Your task to perform on an android device: all mails in gmail Image 0: 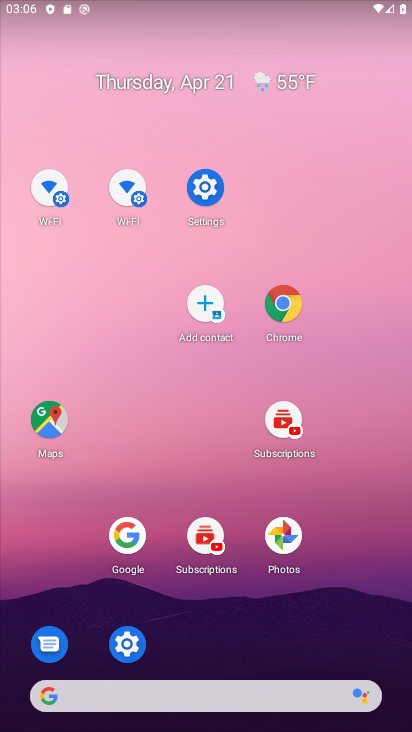
Step 0: drag from (279, 709) to (144, 356)
Your task to perform on an android device: all mails in gmail Image 1: 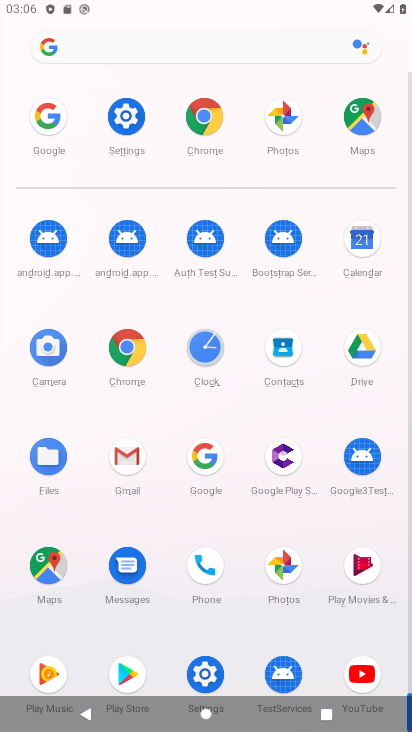
Step 1: drag from (247, 570) to (165, 155)
Your task to perform on an android device: all mails in gmail Image 2: 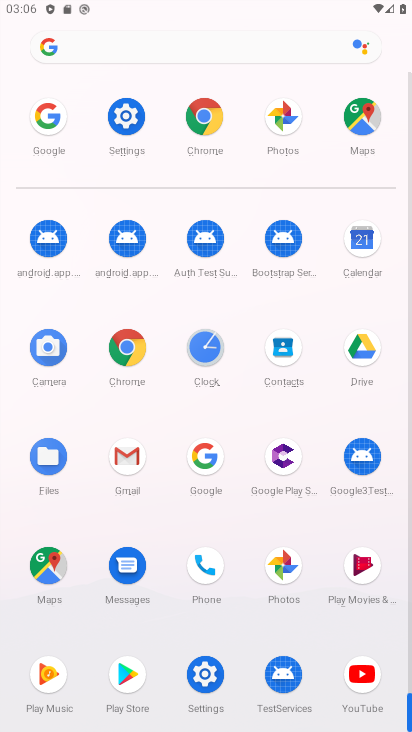
Step 2: click (127, 449)
Your task to perform on an android device: all mails in gmail Image 3: 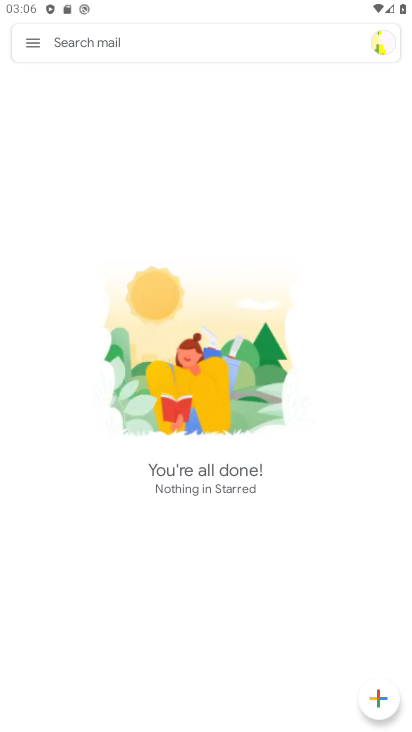
Step 3: click (30, 42)
Your task to perform on an android device: all mails in gmail Image 4: 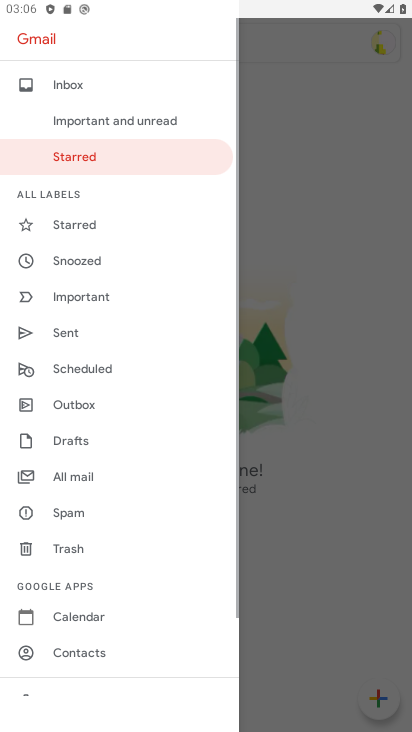
Step 4: click (33, 45)
Your task to perform on an android device: all mails in gmail Image 5: 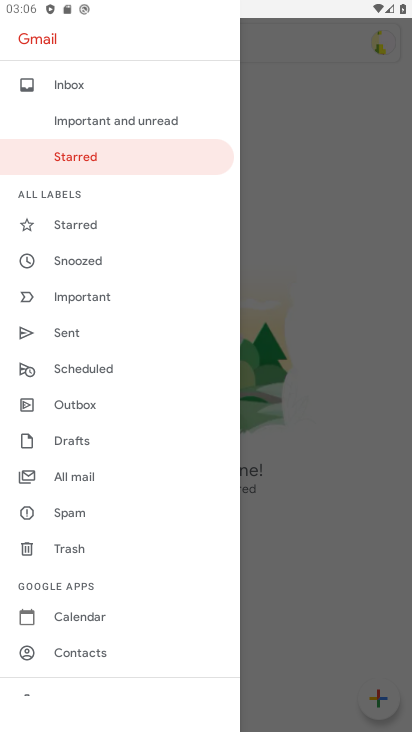
Step 5: click (77, 475)
Your task to perform on an android device: all mails in gmail Image 6: 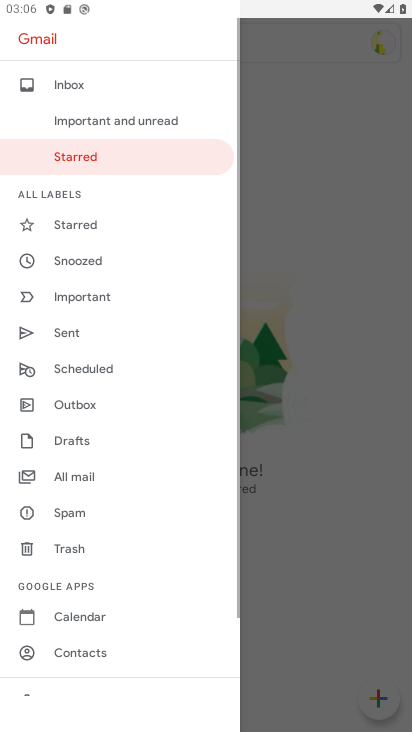
Step 6: click (77, 475)
Your task to perform on an android device: all mails in gmail Image 7: 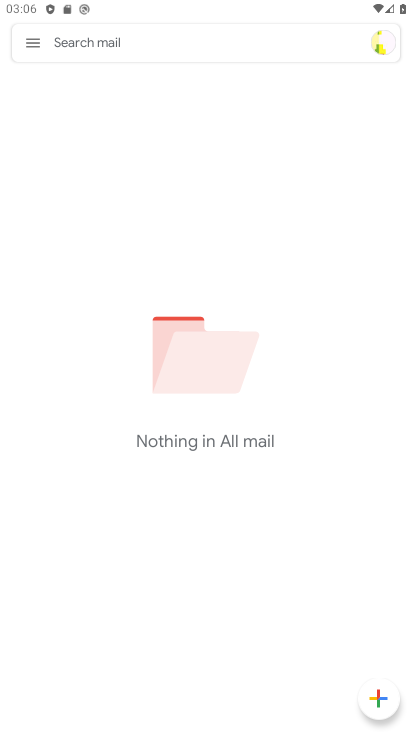
Step 7: click (77, 475)
Your task to perform on an android device: all mails in gmail Image 8: 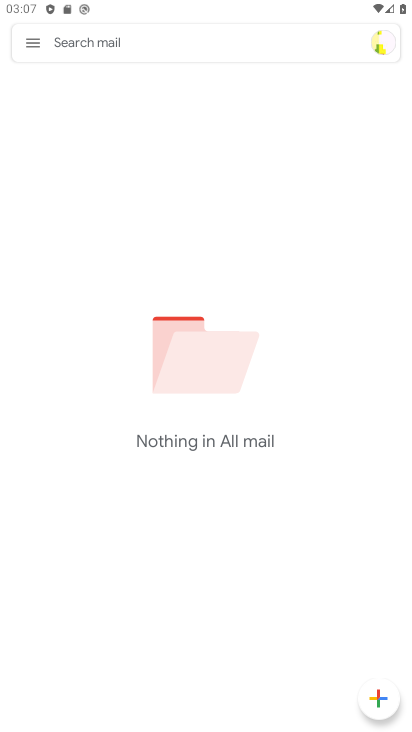
Step 8: click (30, 47)
Your task to perform on an android device: all mails in gmail Image 9: 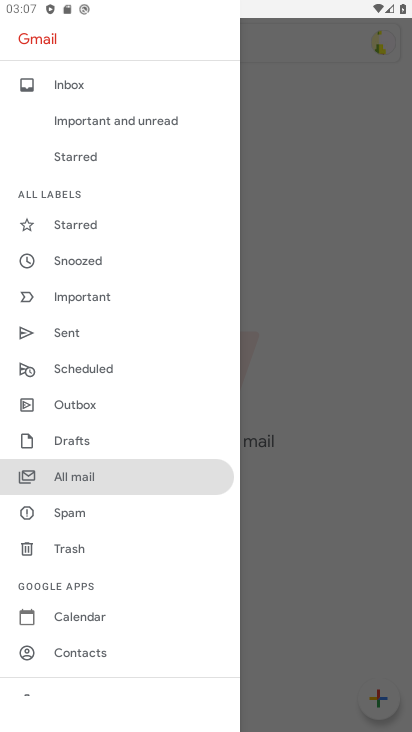
Step 9: click (130, 481)
Your task to perform on an android device: all mails in gmail Image 10: 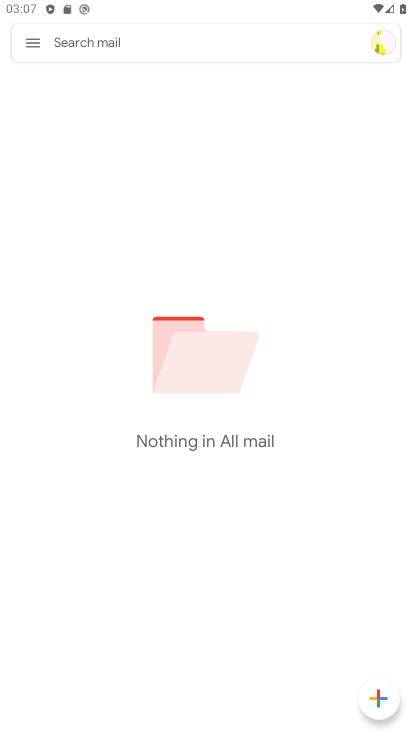
Step 10: task complete